Your task to perform on an android device: Go to wifi settings Image 0: 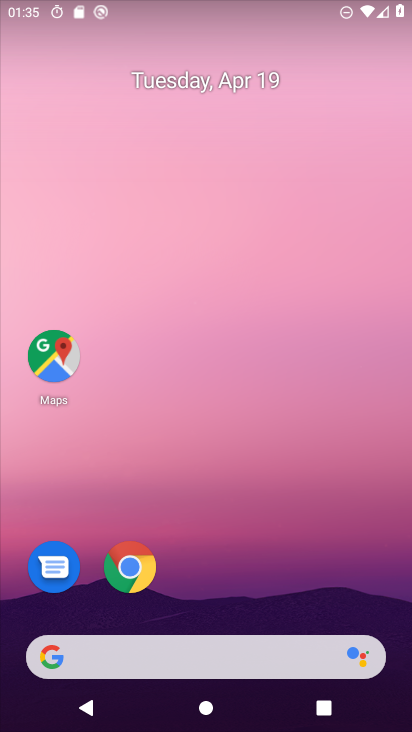
Step 0: drag from (268, 516) to (258, 14)
Your task to perform on an android device: Go to wifi settings Image 1: 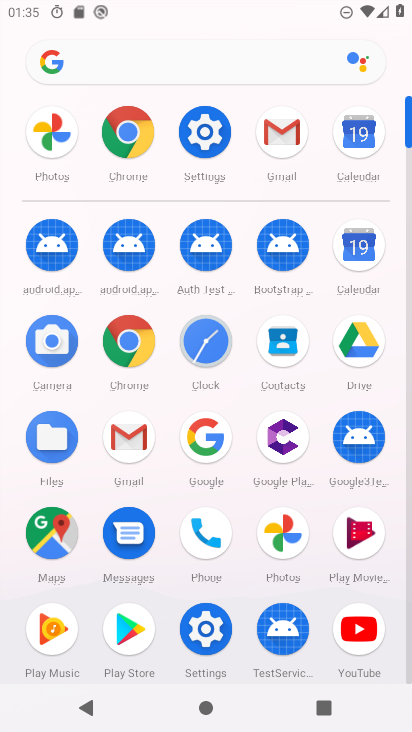
Step 1: click (55, 528)
Your task to perform on an android device: Go to wifi settings Image 2: 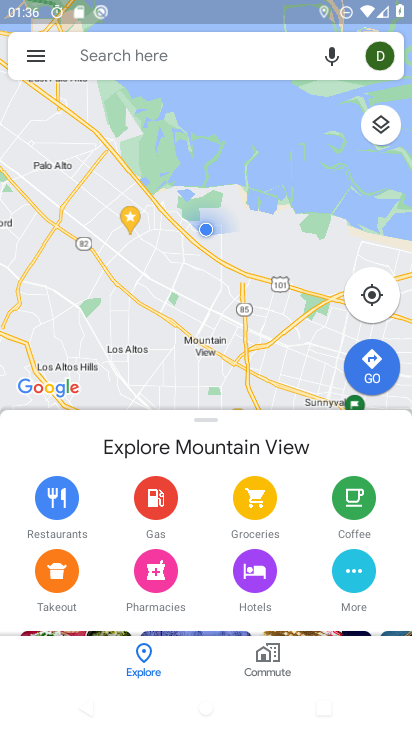
Step 2: press home button
Your task to perform on an android device: Go to wifi settings Image 3: 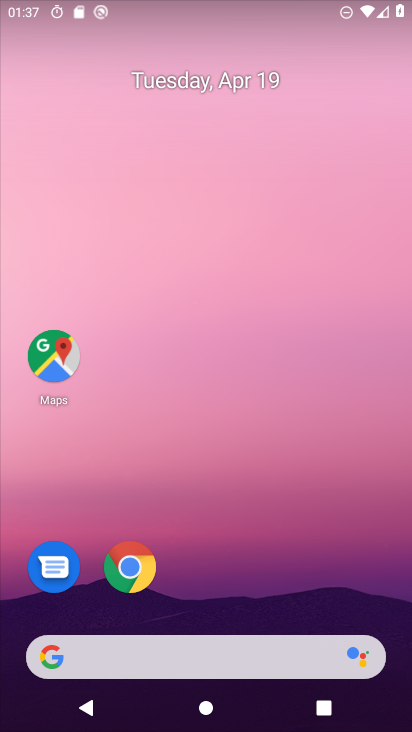
Step 3: drag from (249, 569) to (346, 2)
Your task to perform on an android device: Go to wifi settings Image 4: 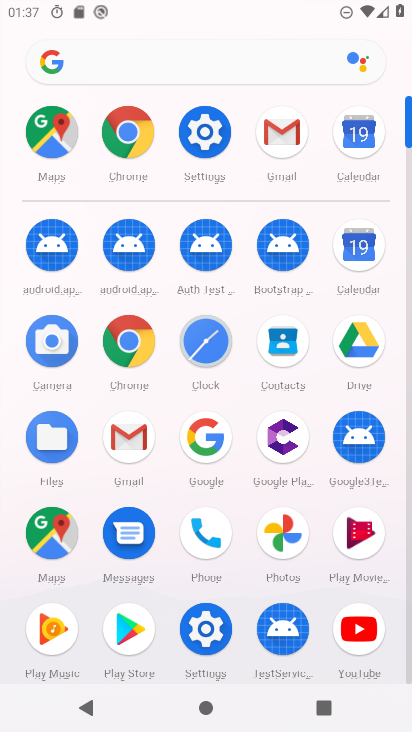
Step 4: click (214, 128)
Your task to perform on an android device: Go to wifi settings Image 5: 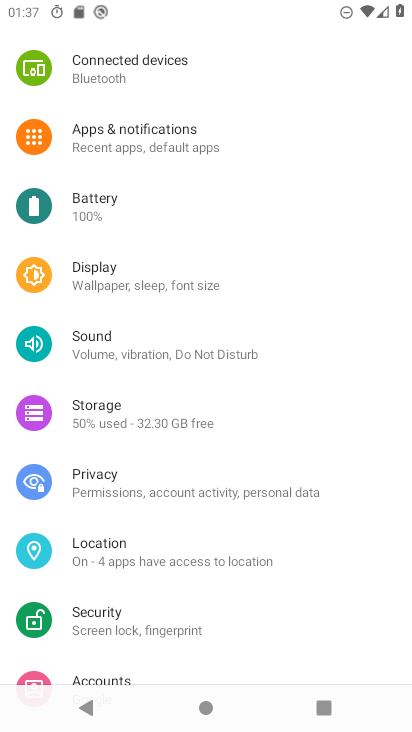
Step 5: drag from (195, 185) to (201, 655)
Your task to perform on an android device: Go to wifi settings Image 6: 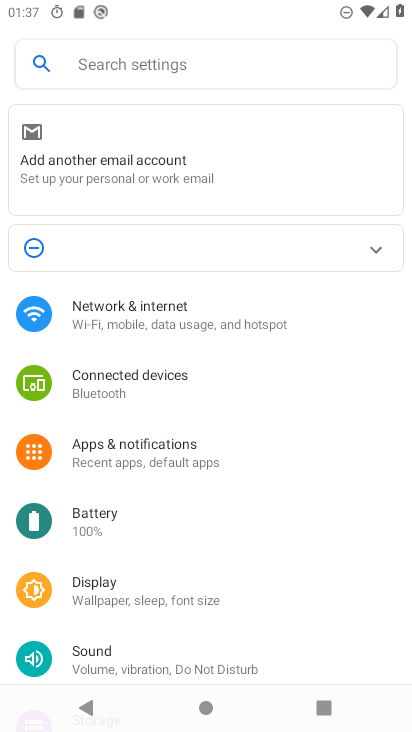
Step 6: click (113, 308)
Your task to perform on an android device: Go to wifi settings Image 7: 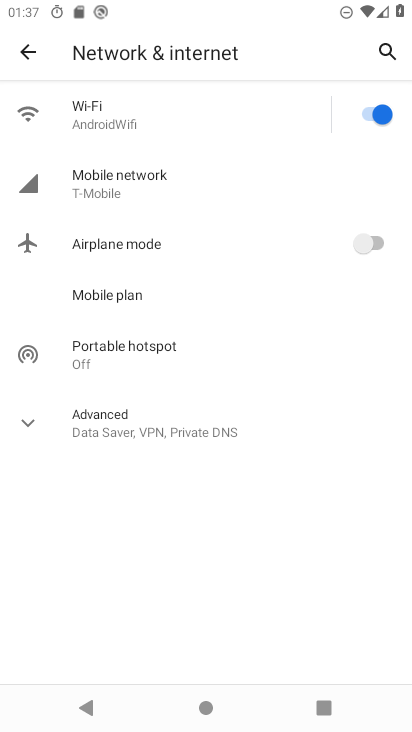
Step 7: click (241, 111)
Your task to perform on an android device: Go to wifi settings Image 8: 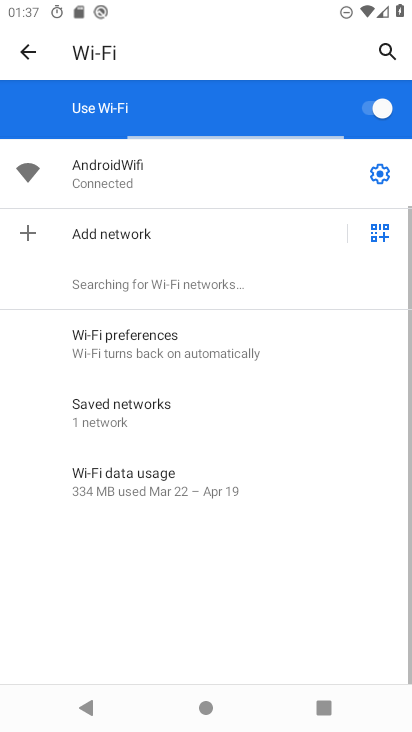
Step 8: click (379, 181)
Your task to perform on an android device: Go to wifi settings Image 9: 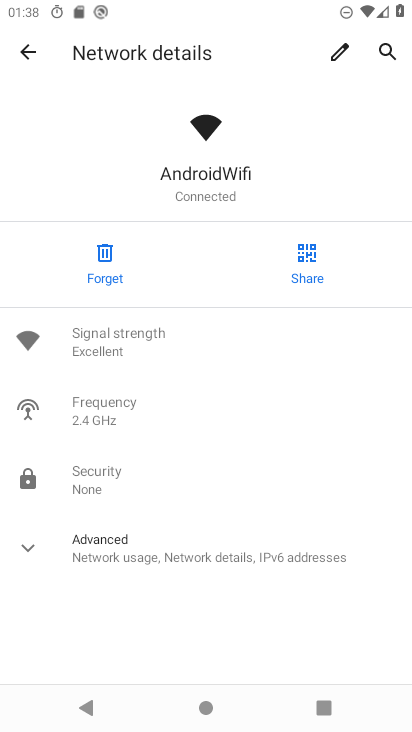
Step 9: task complete